Your task to perform on an android device: check google app version Image 0: 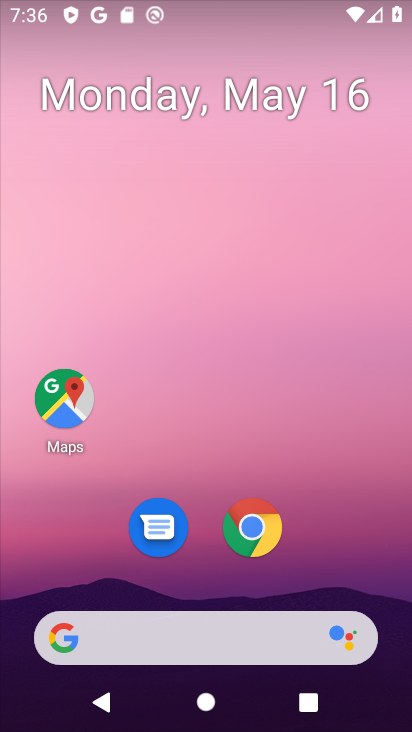
Step 0: drag from (317, 513) to (330, 208)
Your task to perform on an android device: check google app version Image 1: 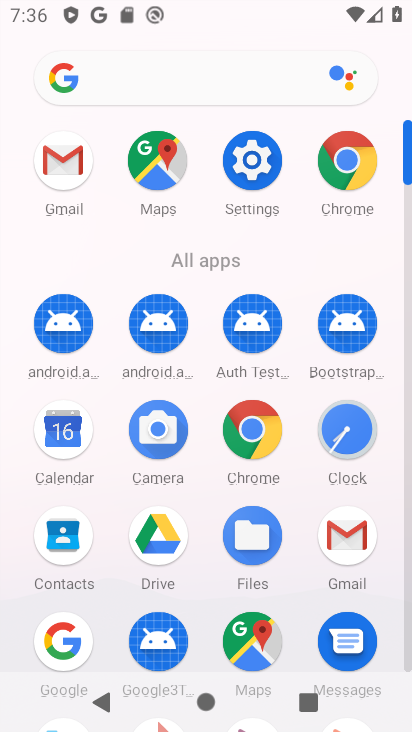
Step 1: drag from (210, 479) to (217, 263)
Your task to perform on an android device: check google app version Image 2: 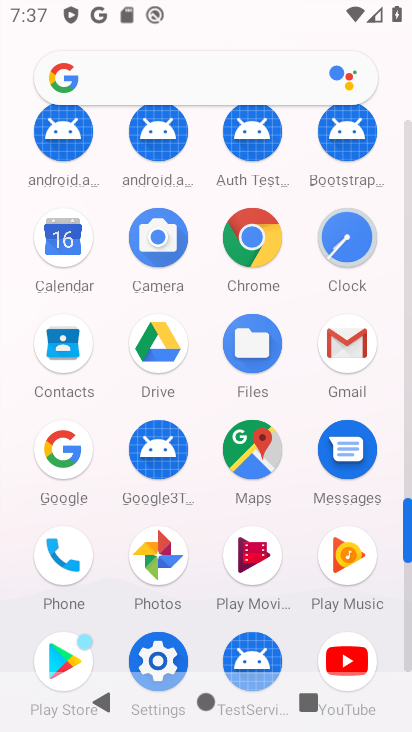
Step 2: click (49, 438)
Your task to perform on an android device: check google app version Image 3: 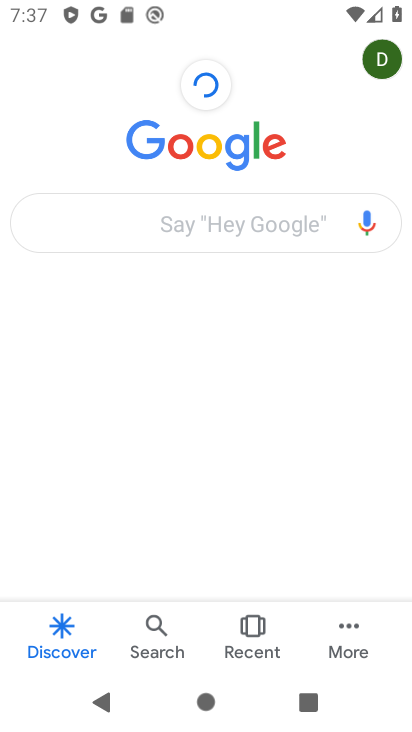
Step 3: click (344, 624)
Your task to perform on an android device: check google app version Image 4: 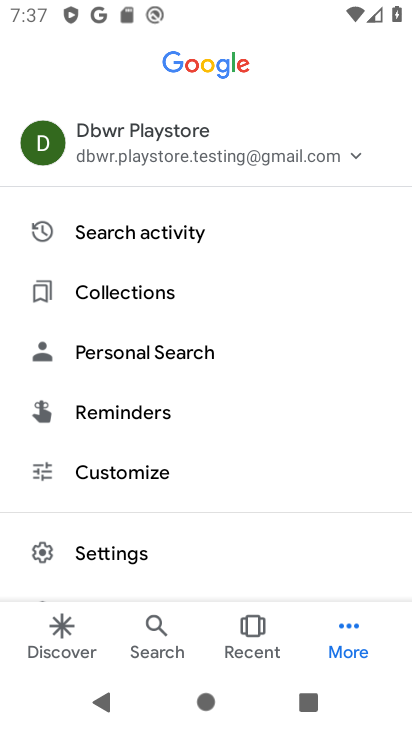
Step 4: click (110, 542)
Your task to perform on an android device: check google app version Image 5: 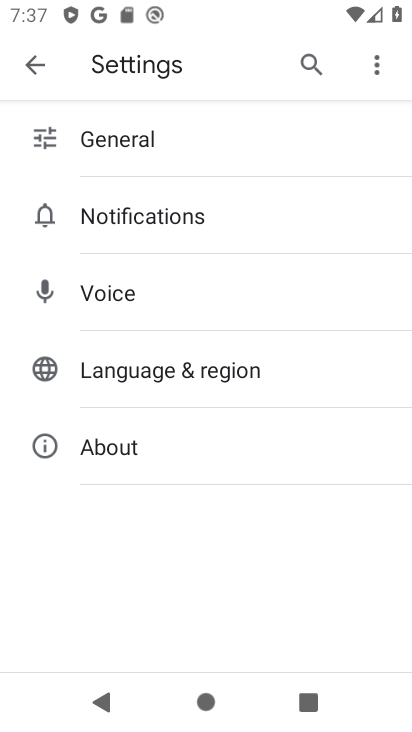
Step 5: click (92, 439)
Your task to perform on an android device: check google app version Image 6: 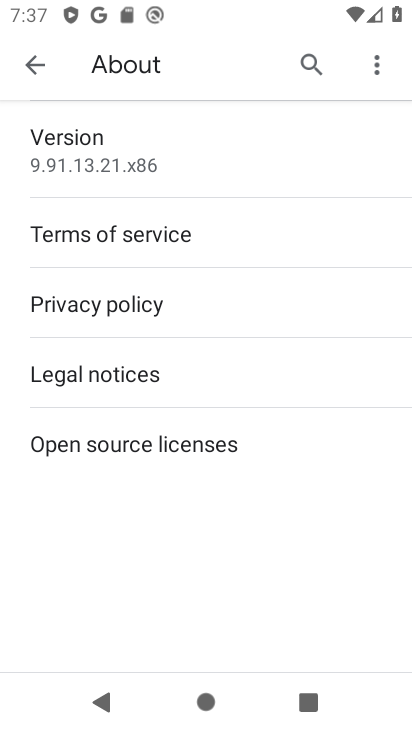
Step 6: task complete